Your task to perform on an android device: uninstall "Google Maps" Image 0: 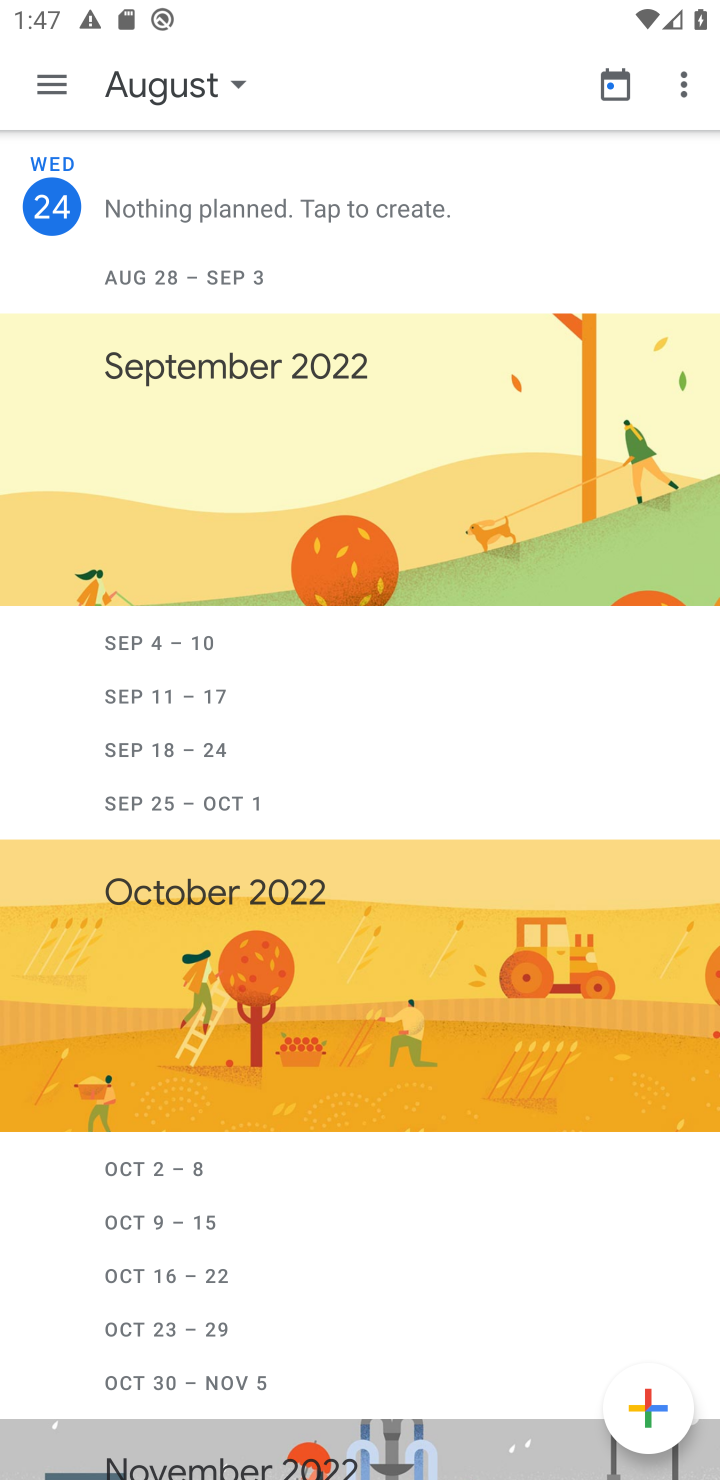
Step 0: press home button
Your task to perform on an android device: uninstall "Google Maps" Image 1: 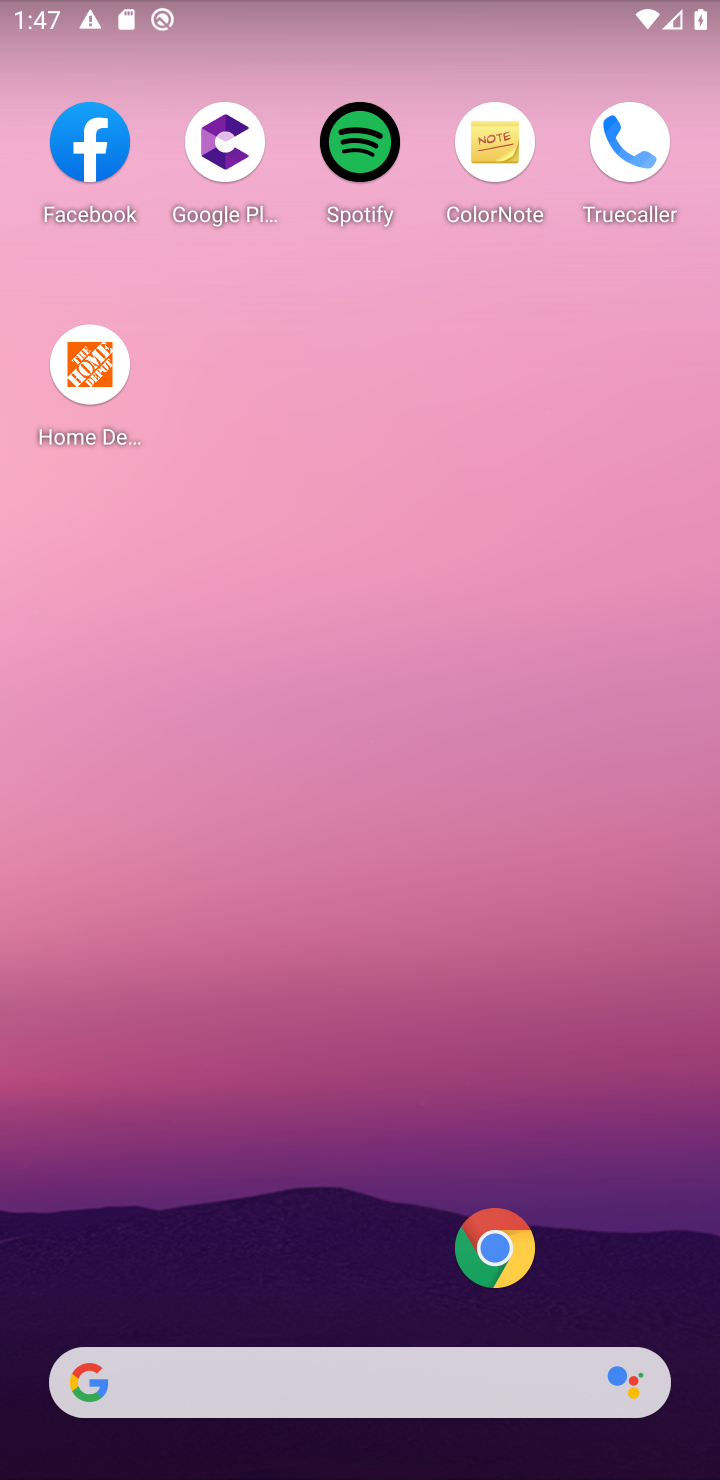
Step 1: drag from (258, 1243) to (314, 490)
Your task to perform on an android device: uninstall "Google Maps" Image 2: 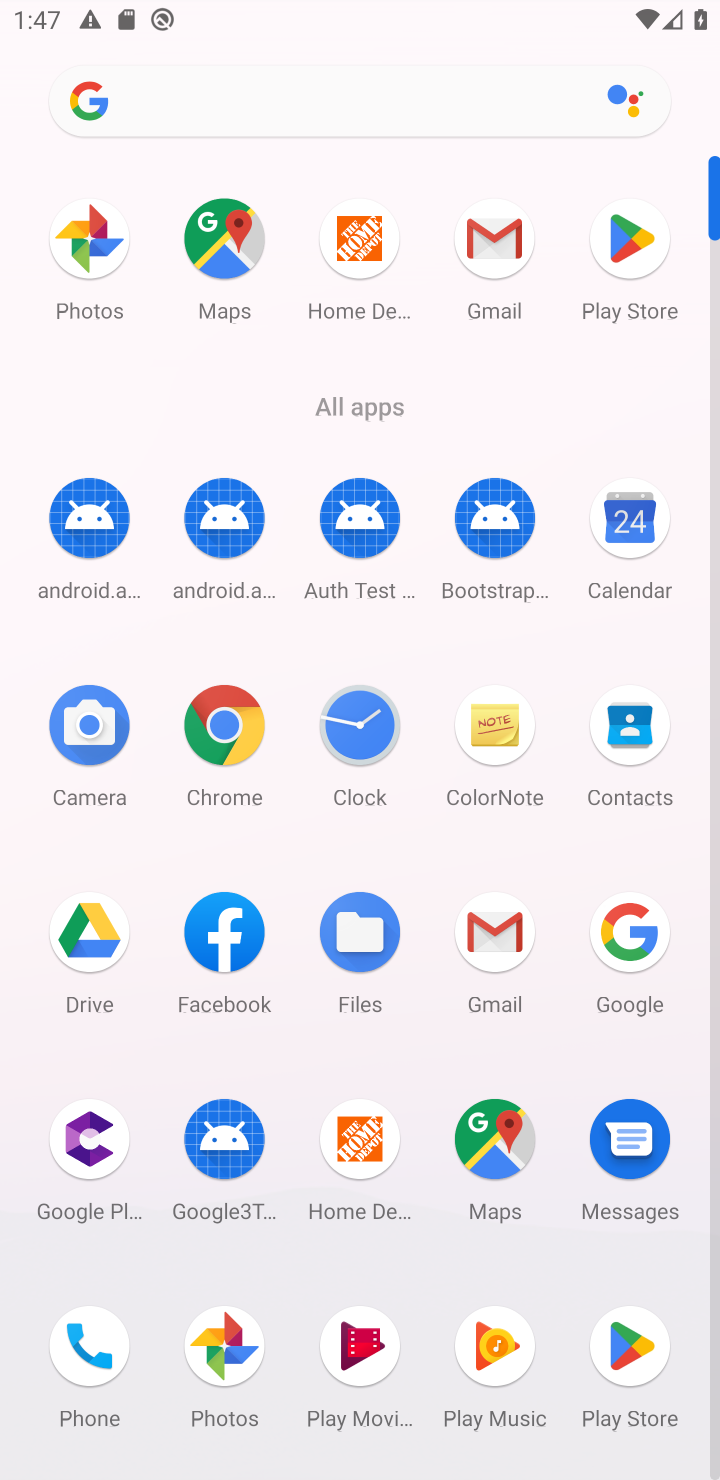
Step 2: click (624, 237)
Your task to perform on an android device: uninstall "Google Maps" Image 3: 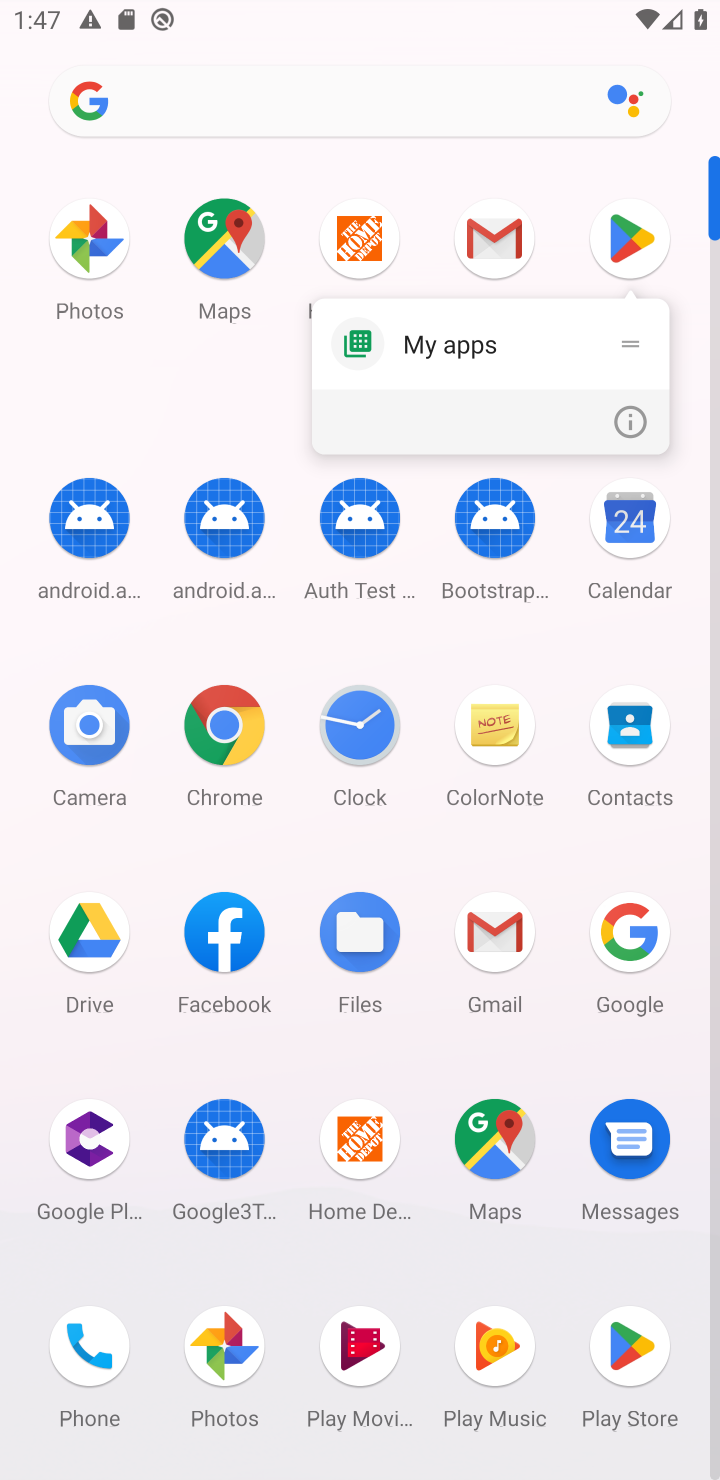
Step 3: click (624, 237)
Your task to perform on an android device: uninstall "Google Maps" Image 4: 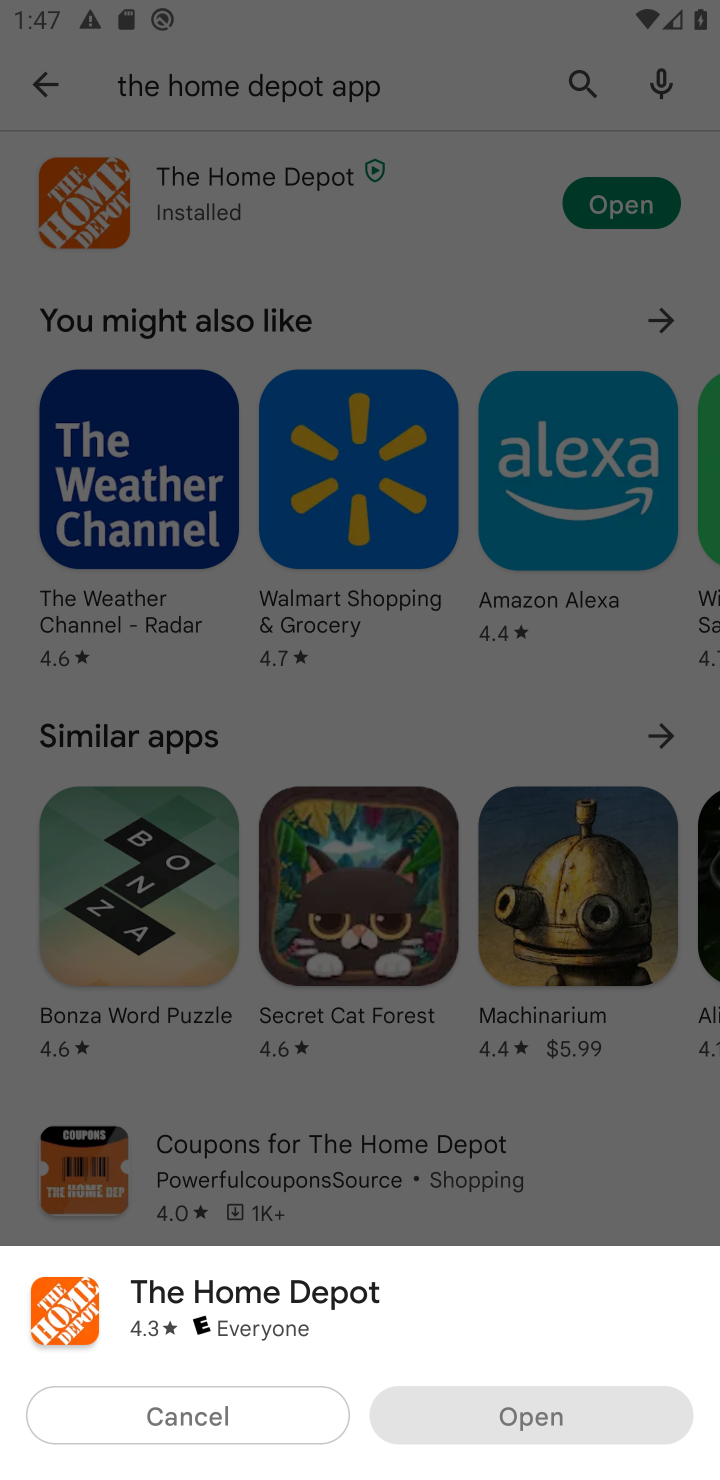
Step 4: click (442, 129)
Your task to perform on an android device: uninstall "Google Maps" Image 5: 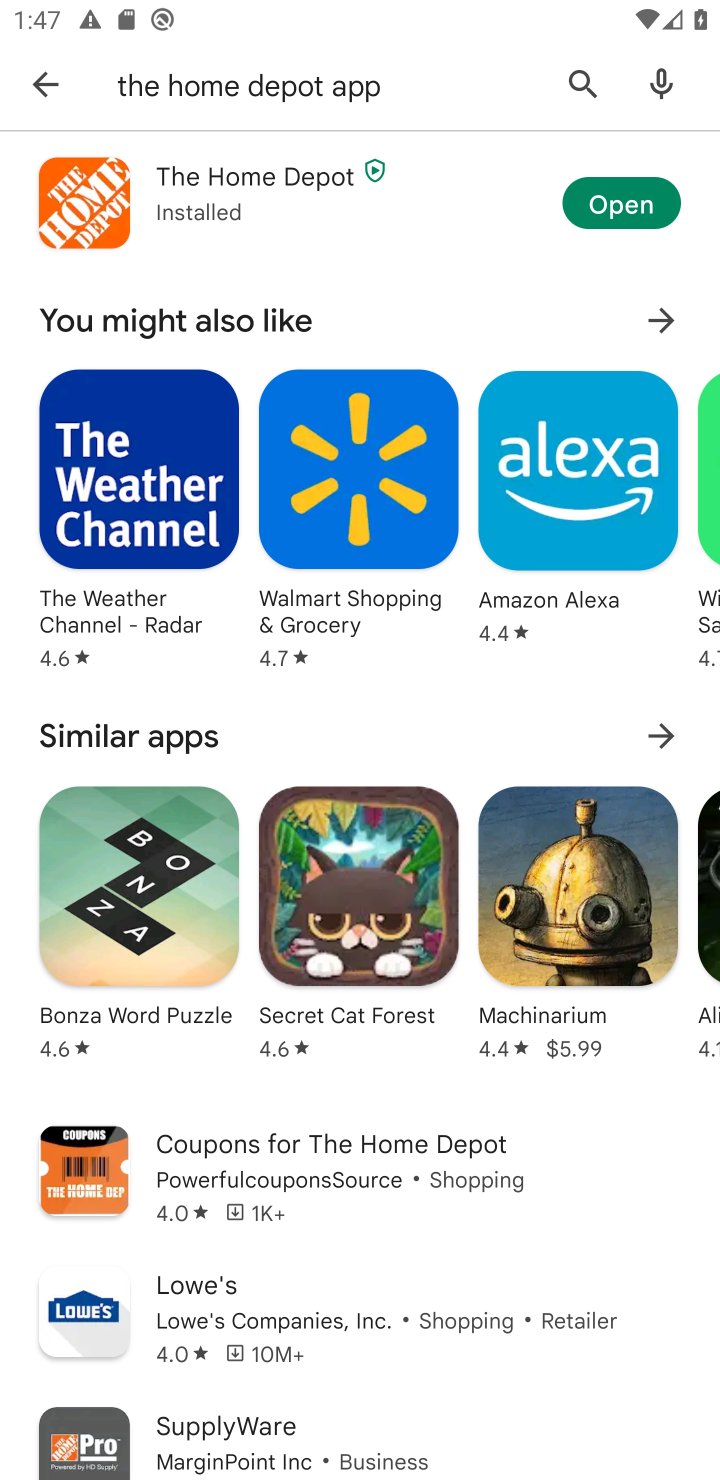
Step 5: click (563, 93)
Your task to perform on an android device: uninstall "Google Maps" Image 6: 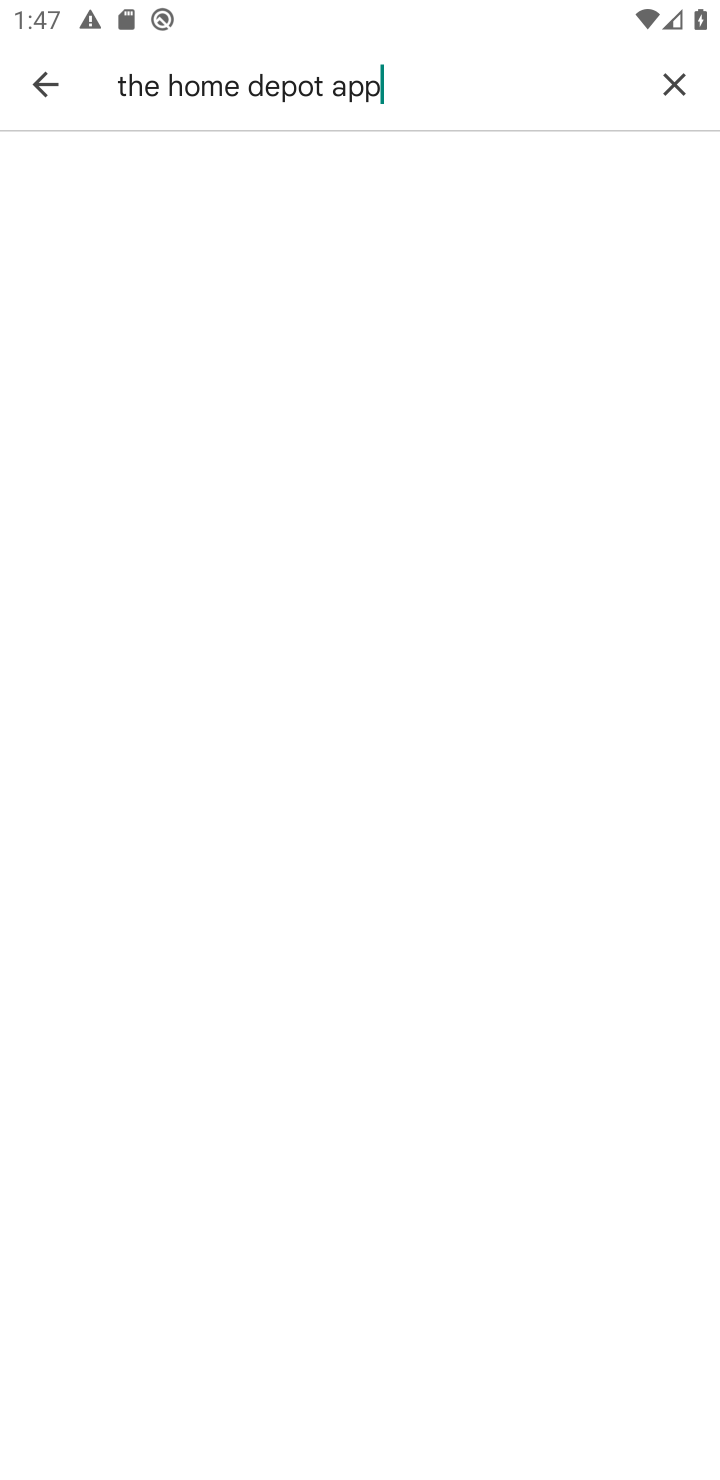
Step 6: click (567, 57)
Your task to perform on an android device: uninstall "Google Maps" Image 7: 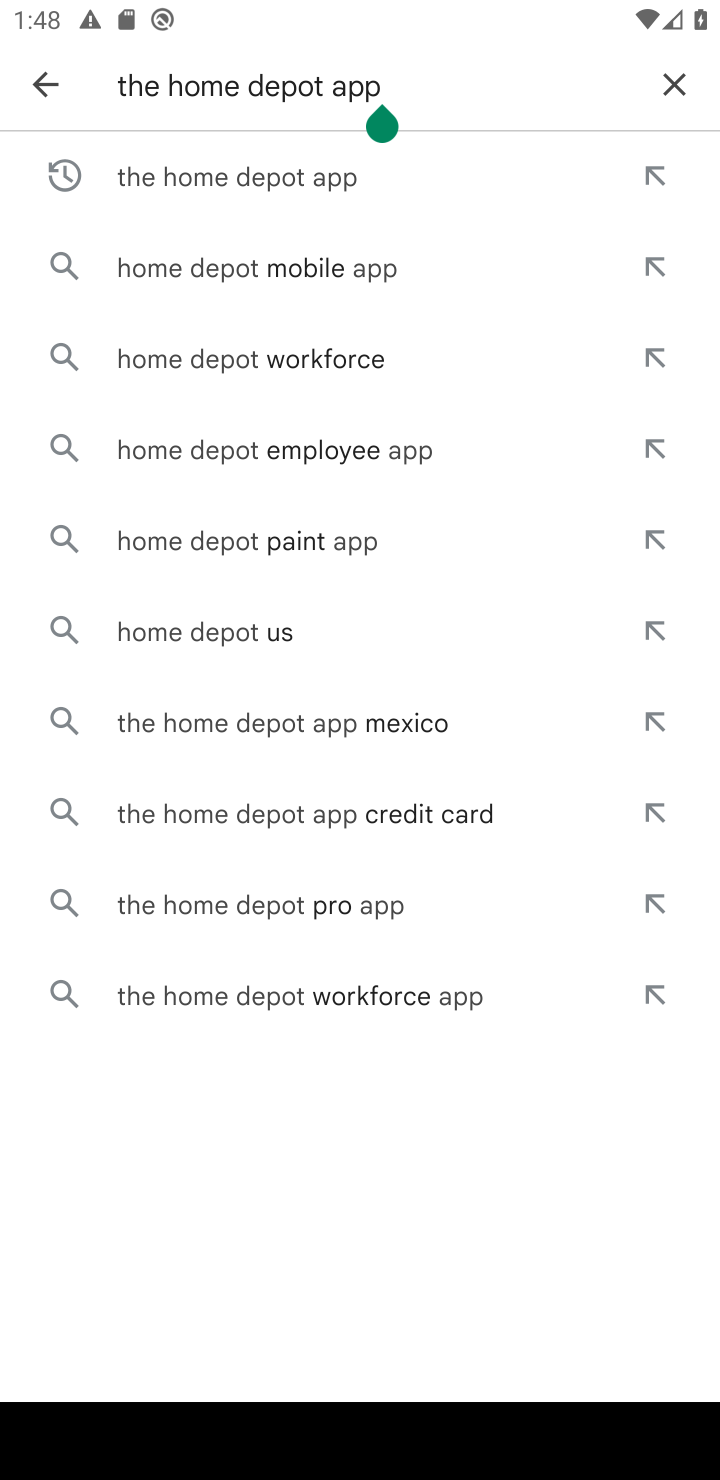
Step 7: click (674, 77)
Your task to perform on an android device: uninstall "Google Maps" Image 8: 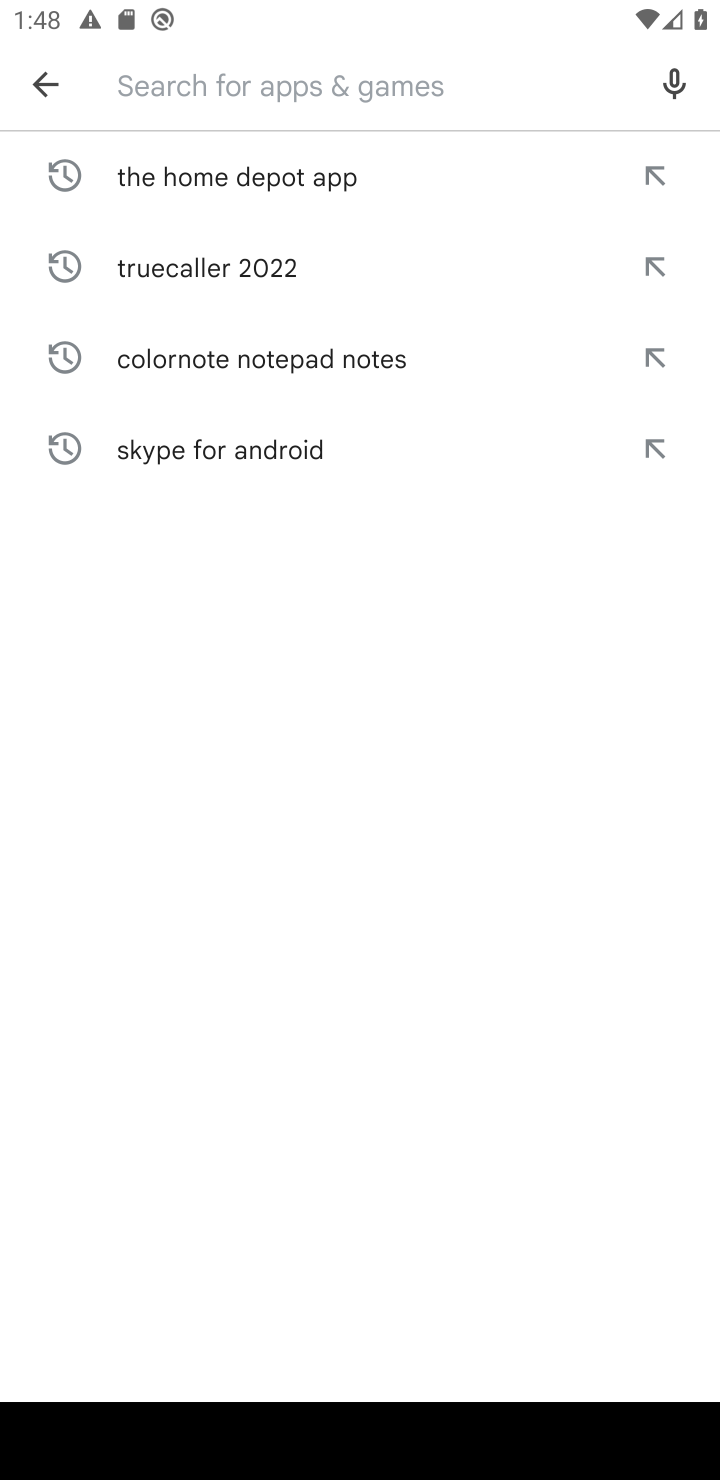
Step 8: click (357, 50)
Your task to perform on an android device: uninstall "Google Maps" Image 9: 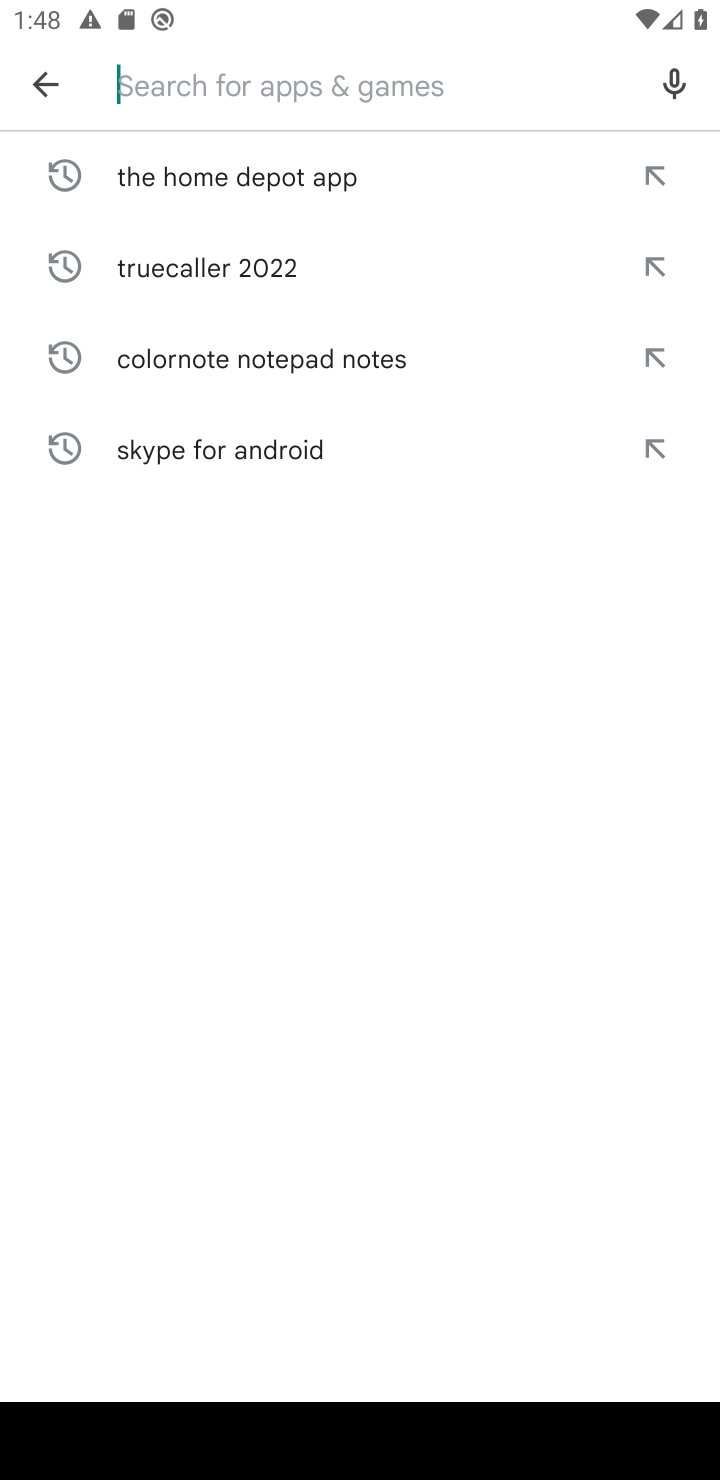
Step 9: type "Google Maps "
Your task to perform on an android device: uninstall "Google Maps" Image 10: 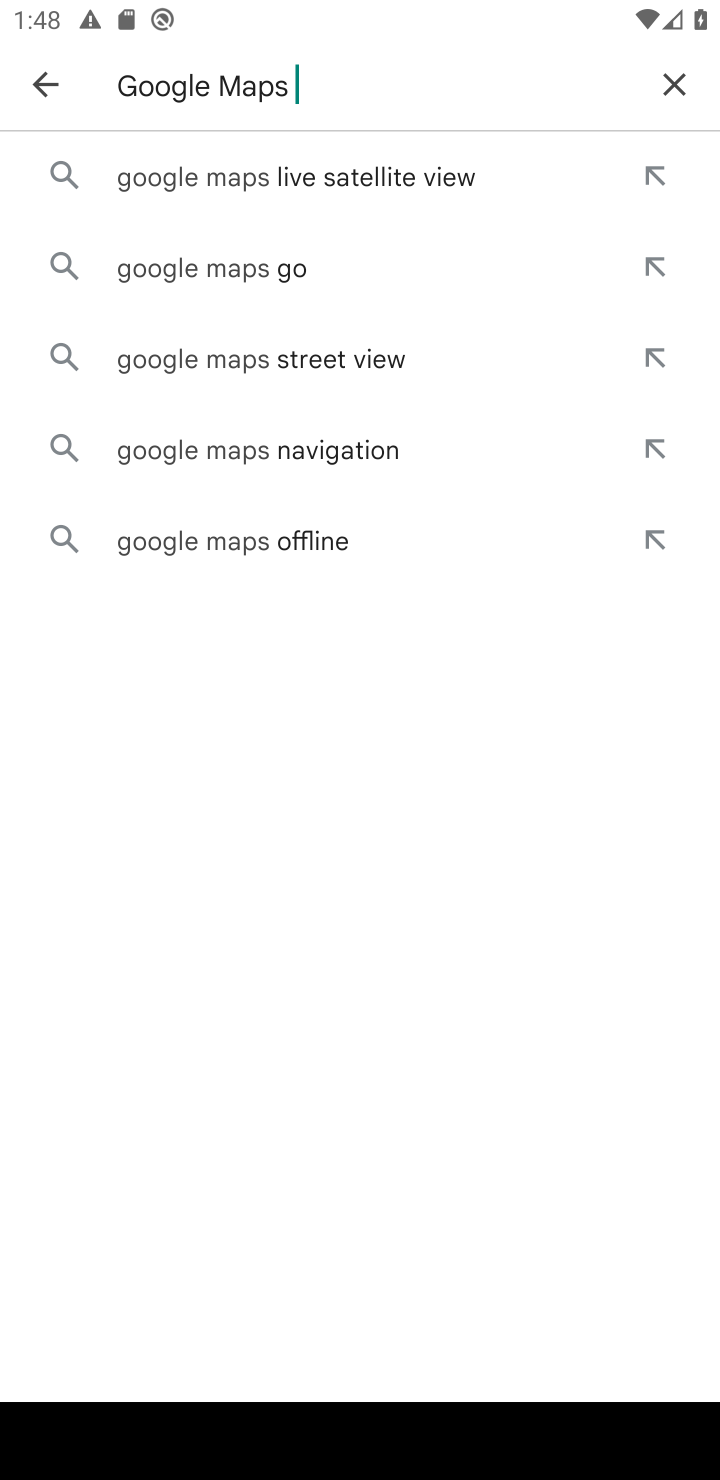
Step 10: click (222, 267)
Your task to perform on an android device: uninstall "Google Maps" Image 11: 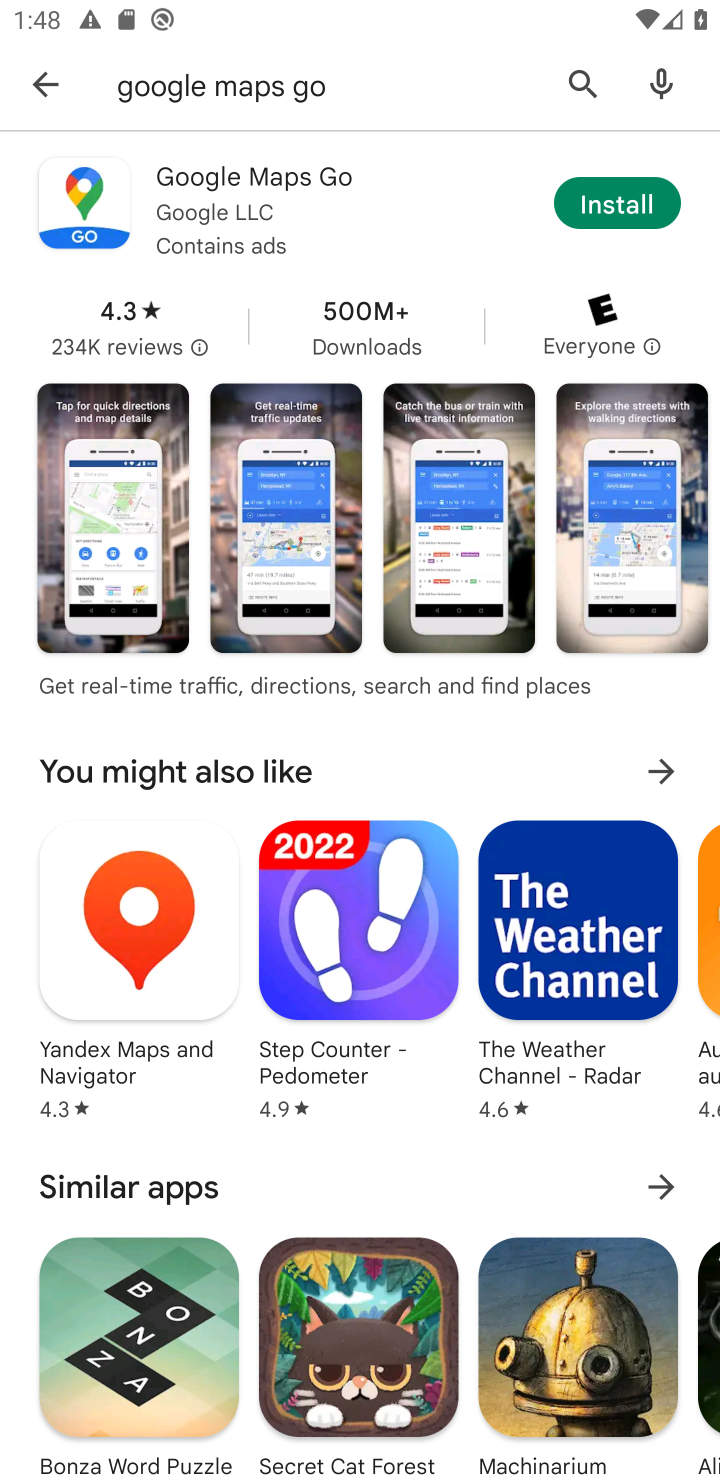
Step 11: click (160, 174)
Your task to perform on an android device: uninstall "Google Maps" Image 12: 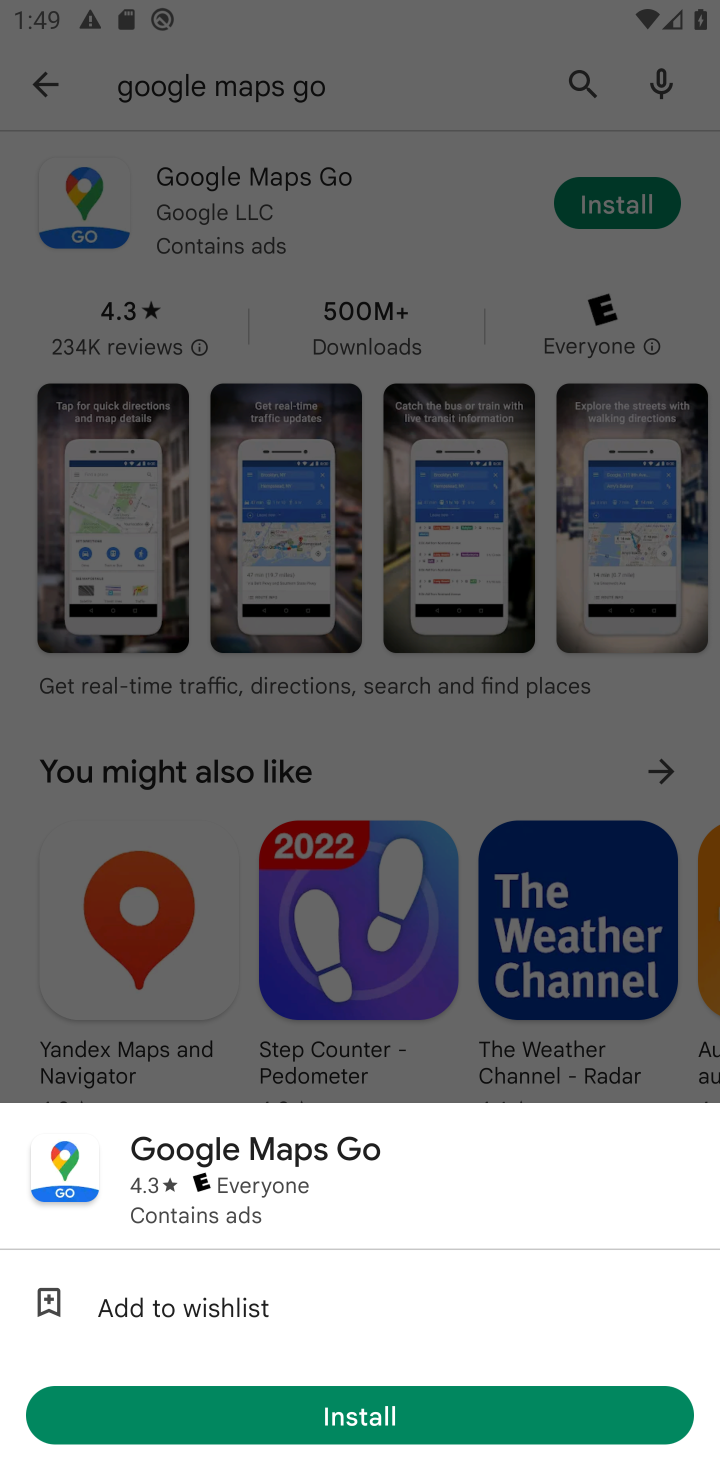
Step 12: task complete